Your task to perform on an android device: Open Yahoo.com Image 0: 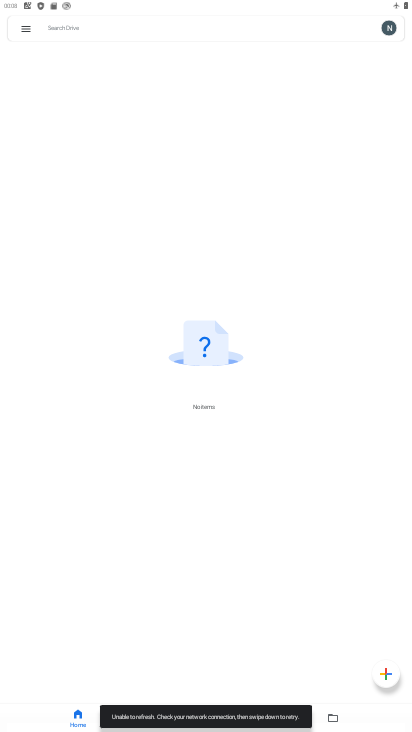
Step 0: press home button
Your task to perform on an android device: Open Yahoo.com Image 1: 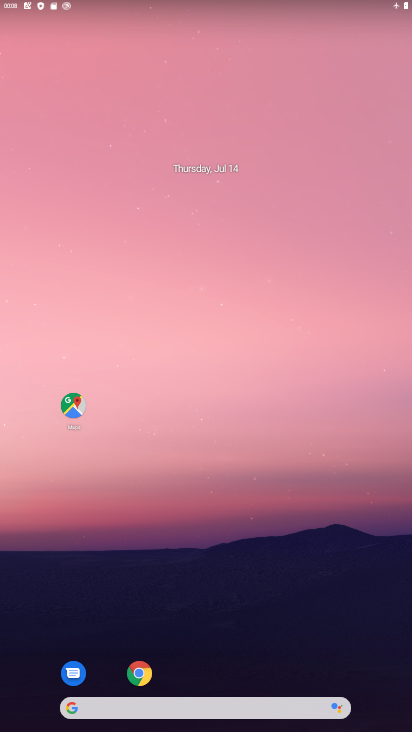
Step 1: click (136, 691)
Your task to perform on an android device: Open Yahoo.com Image 2: 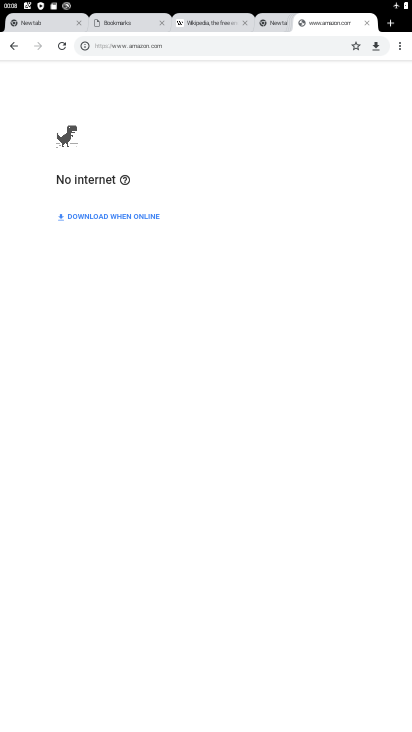
Step 2: task complete